Your task to perform on an android device: Open Yahoo.com Image 0: 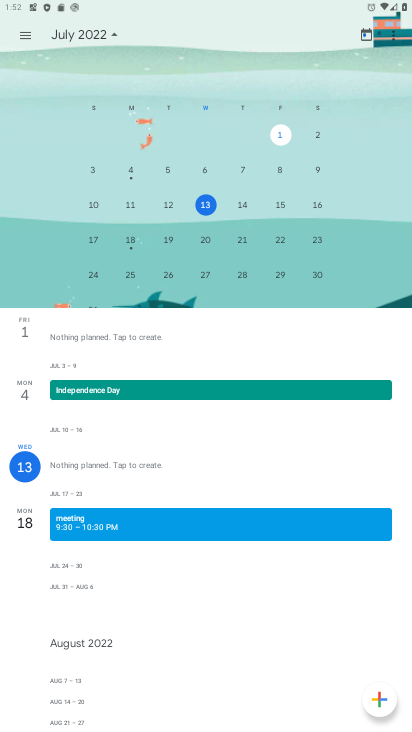
Step 0: press home button
Your task to perform on an android device: Open Yahoo.com Image 1: 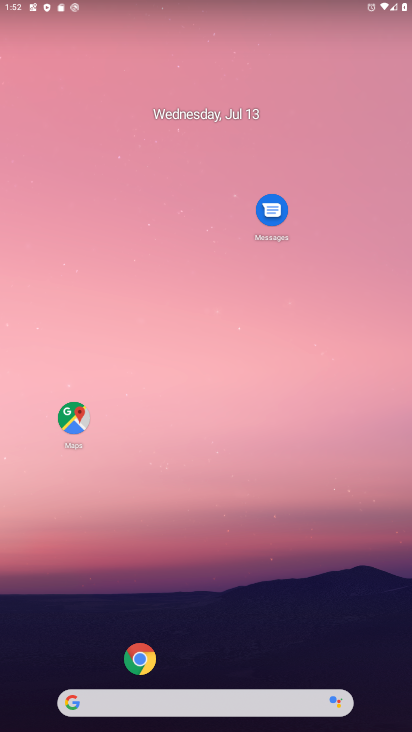
Step 1: click (95, 704)
Your task to perform on an android device: Open Yahoo.com Image 2: 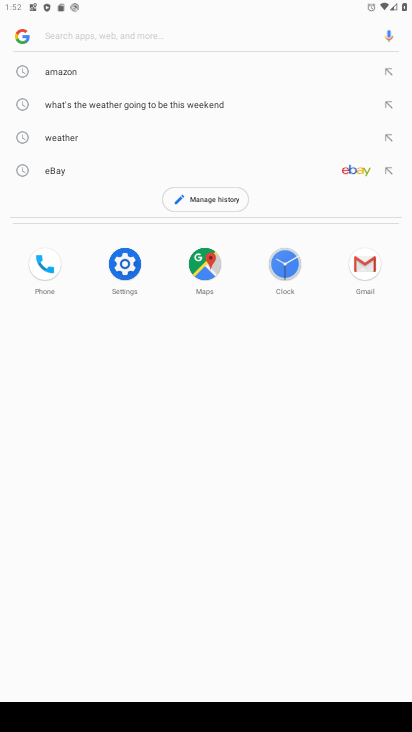
Step 2: type "Yahoo.com"
Your task to perform on an android device: Open Yahoo.com Image 3: 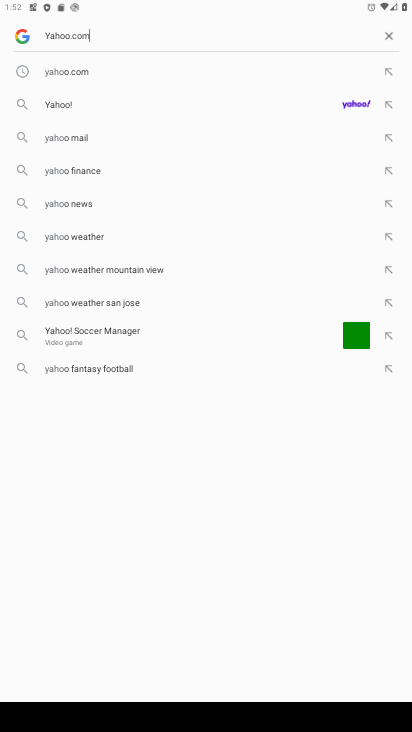
Step 3: type ""
Your task to perform on an android device: Open Yahoo.com Image 4: 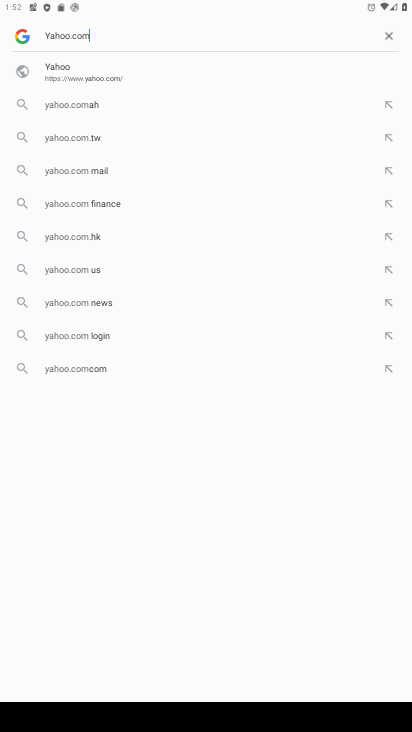
Step 4: type ""
Your task to perform on an android device: Open Yahoo.com Image 5: 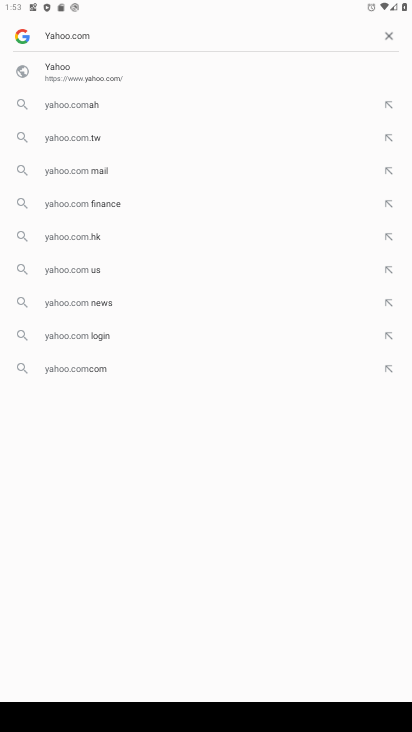
Step 5: task complete